Your task to perform on an android device: Search for bose quietcomfort 35 on ebay.com, select the first entry, add it to the cart, then select checkout. Image 0: 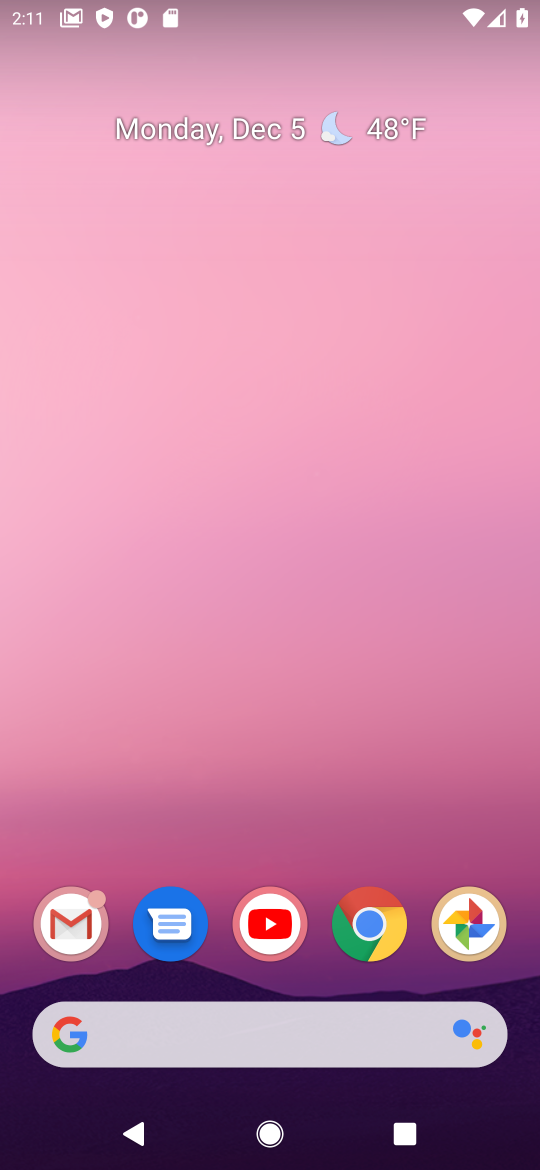
Step 0: click (378, 926)
Your task to perform on an android device: Search for bose quietcomfort 35 on ebay.com, select the first entry, add it to the cart, then select checkout. Image 1: 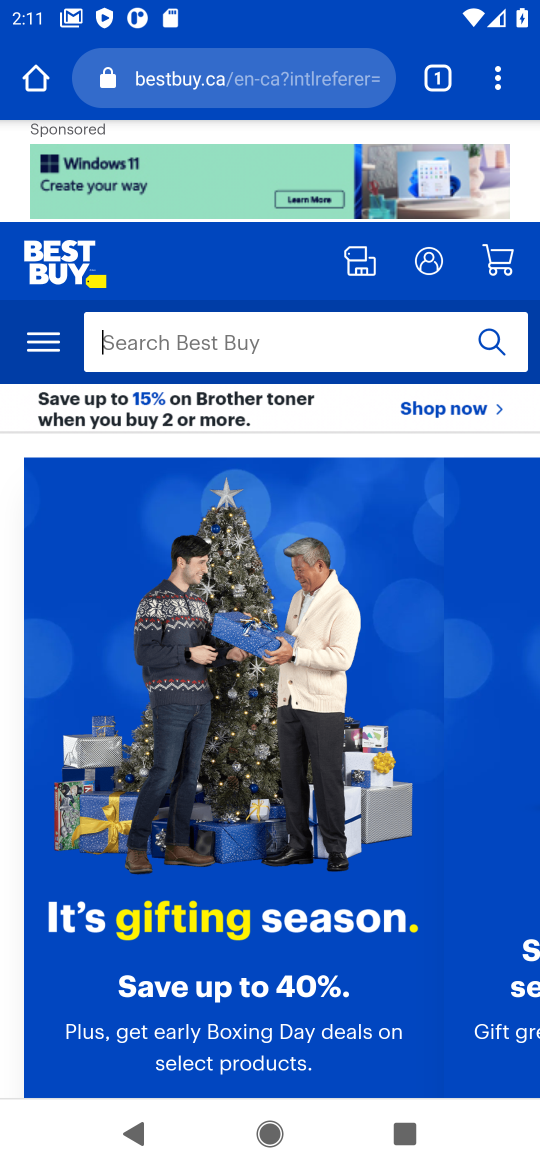
Step 1: type "bose quientcomfort 35"
Your task to perform on an android device: Search for bose quietcomfort 35 on ebay.com, select the first entry, add it to the cart, then select checkout. Image 2: 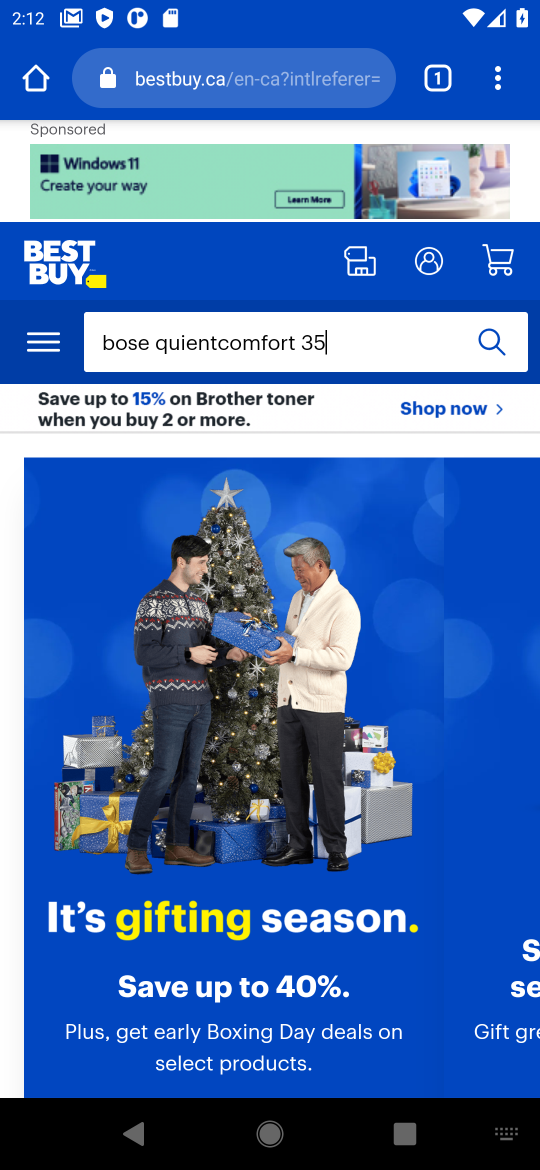
Step 2: click (514, 355)
Your task to perform on an android device: Search for bose quietcomfort 35 on ebay.com, select the first entry, add it to the cart, then select checkout. Image 3: 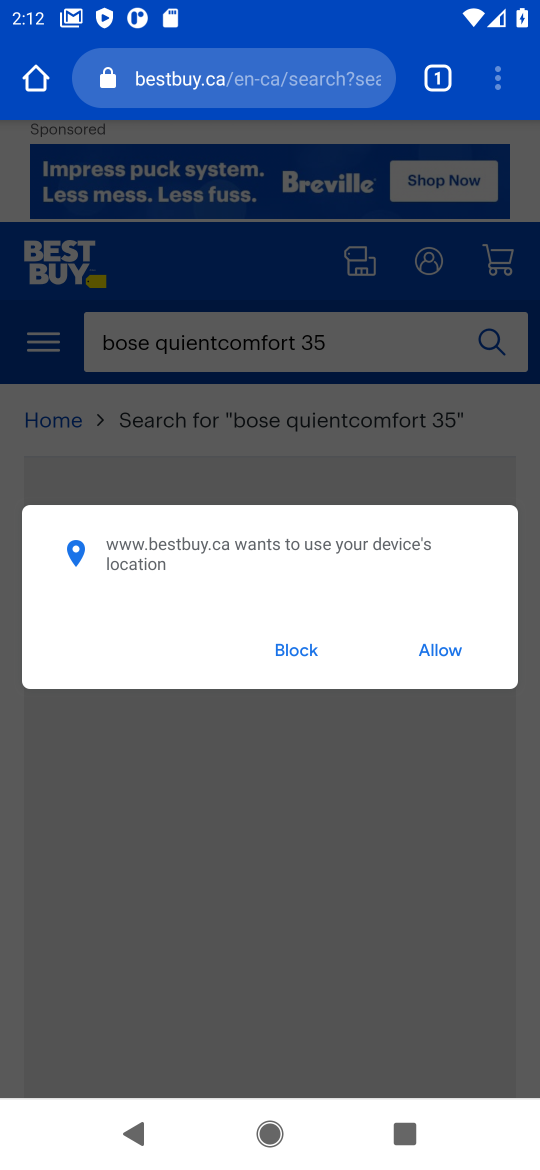
Step 3: click (282, 666)
Your task to perform on an android device: Search for bose quietcomfort 35 on ebay.com, select the first entry, add it to the cart, then select checkout. Image 4: 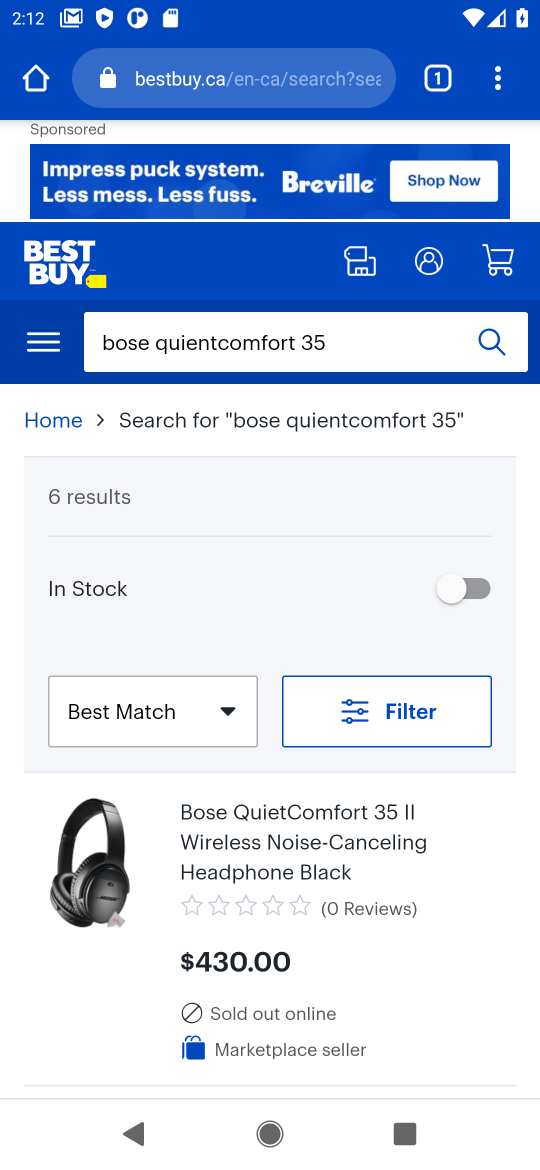
Step 4: drag from (448, 1049) to (370, 515)
Your task to perform on an android device: Search for bose quietcomfort 35 on ebay.com, select the first entry, add it to the cart, then select checkout. Image 5: 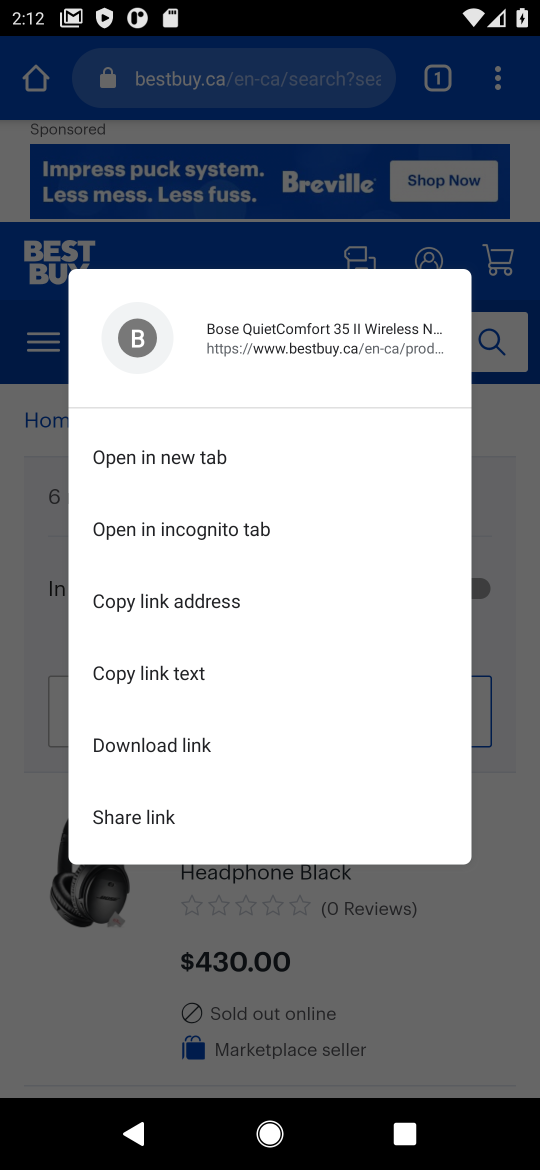
Step 5: click (49, 975)
Your task to perform on an android device: Search for bose quietcomfort 35 on ebay.com, select the first entry, add it to the cart, then select checkout. Image 6: 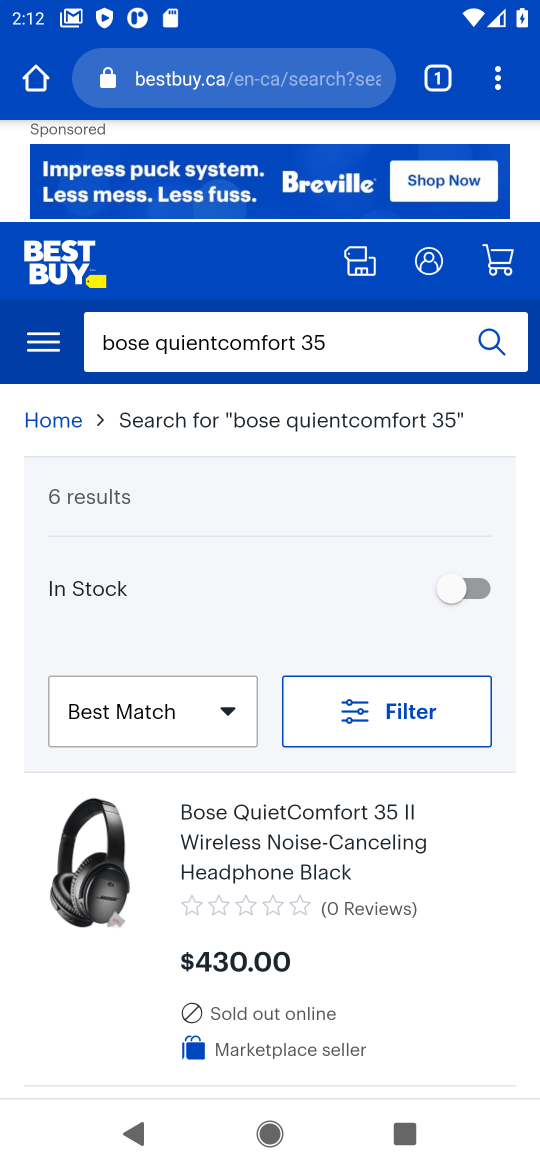
Step 6: task complete